Your task to perform on an android device: Open Yahoo.com Image 0: 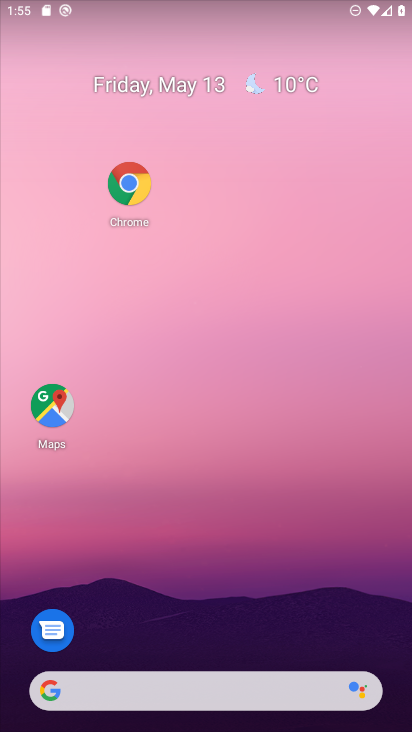
Step 0: click (129, 166)
Your task to perform on an android device: Open Yahoo.com Image 1: 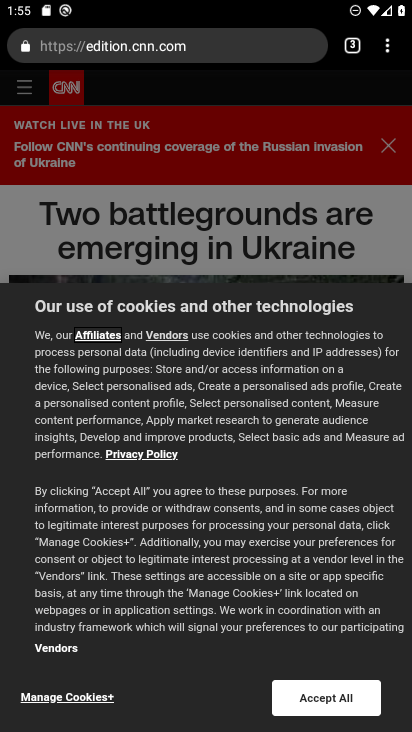
Step 1: click (209, 52)
Your task to perform on an android device: Open Yahoo.com Image 2: 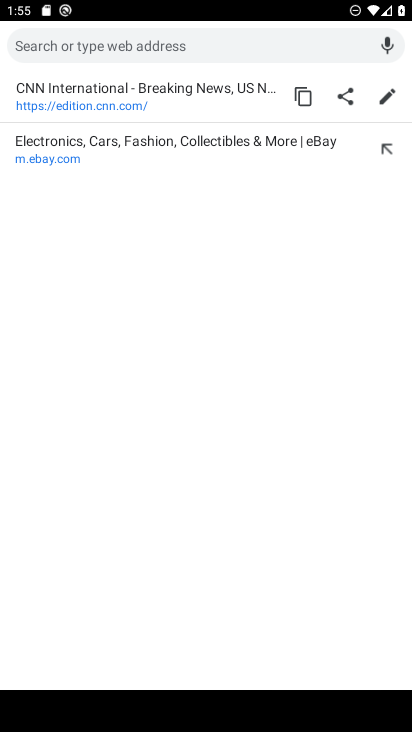
Step 2: type "yahoo.com"
Your task to perform on an android device: Open Yahoo.com Image 3: 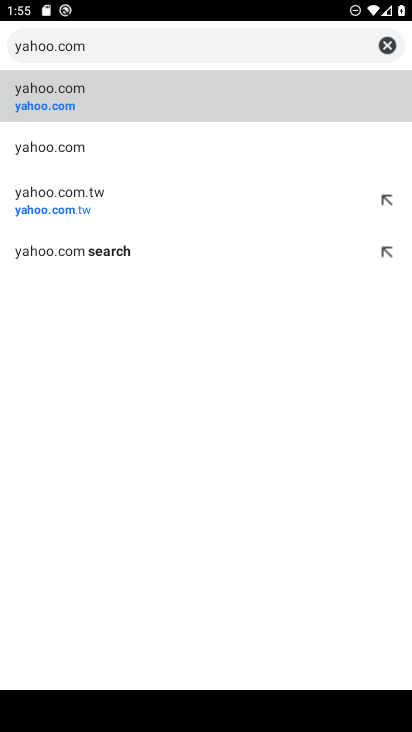
Step 3: click (129, 89)
Your task to perform on an android device: Open Yahoo.com Image 4: 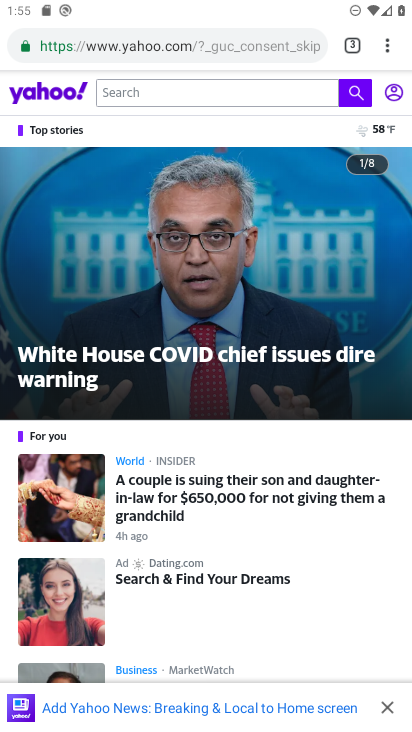
Step 4: task complete